Your task to perform on an android device: Open Chrome and go to settings Image 0: 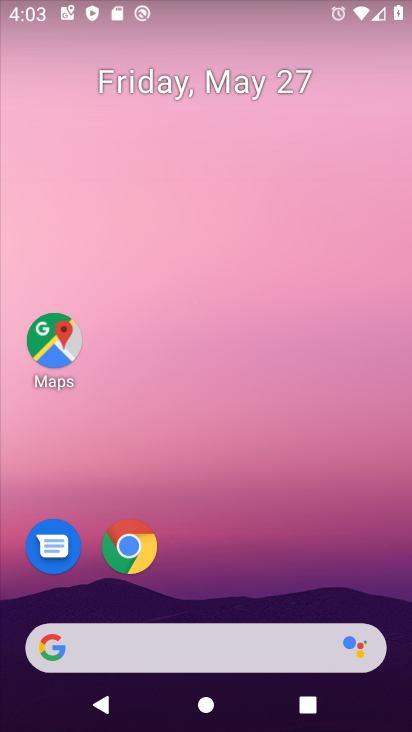
Step 0: click (127, 540)
Your task to perform on an android device: Open Chrome and go to settings Image 1: 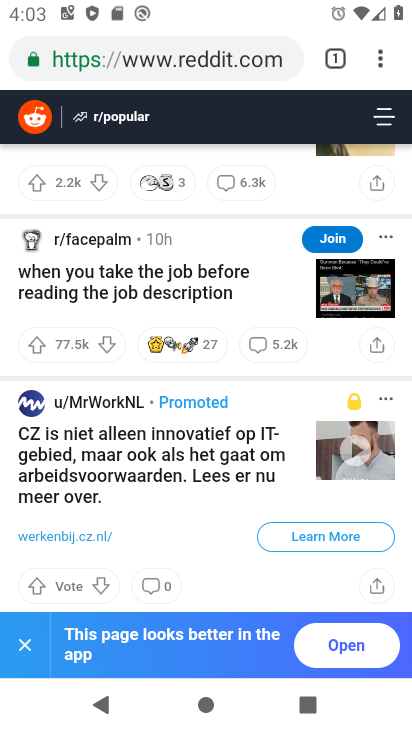
Step 1: click (28, 648)
Your task to perform on an android device: Open Chrome and go to settings Image 2: 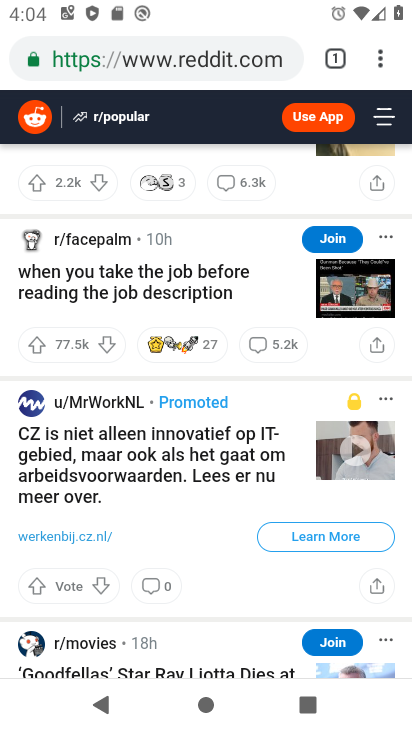
Step 2: click (376, 59)
Your task to perform on an android device: Open Chrome and go to settings Image 3: 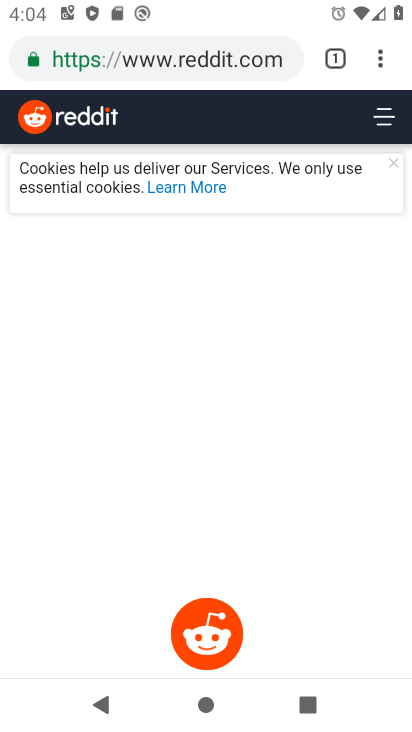
Step 3: click (380, 63)
Your task to perform on an android device: Open Chrome and go to settings Image 4: 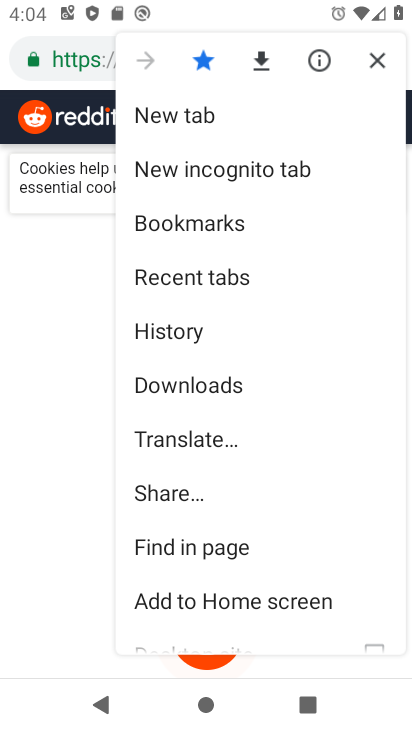
Step 4: drag from (252, 567) to (275, 219)
Your task to perform on an android device: Open Chrome and go to settings Image 5: 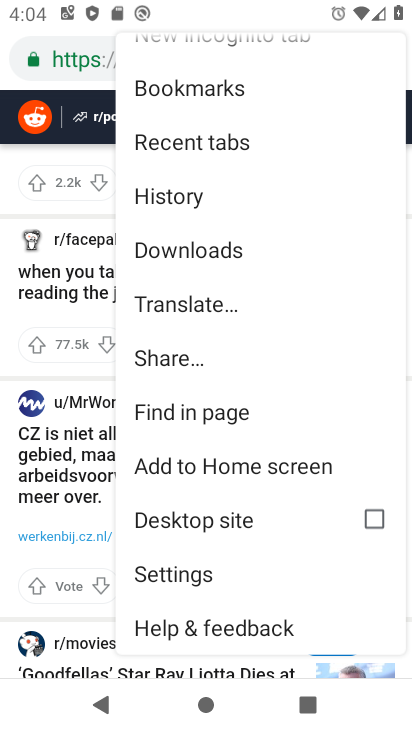
Step 5: click (223, 570)
Your task to perform on an android device: Open Chrome and go to settings Image 6: 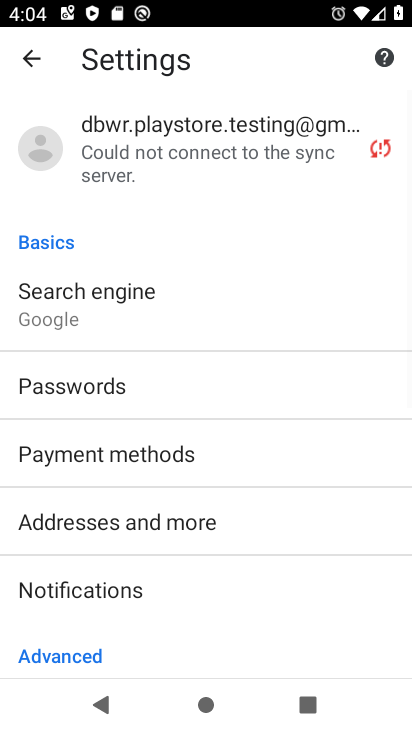
Step 6: task complete